Your task to perform on an android device: check android version Image 0: 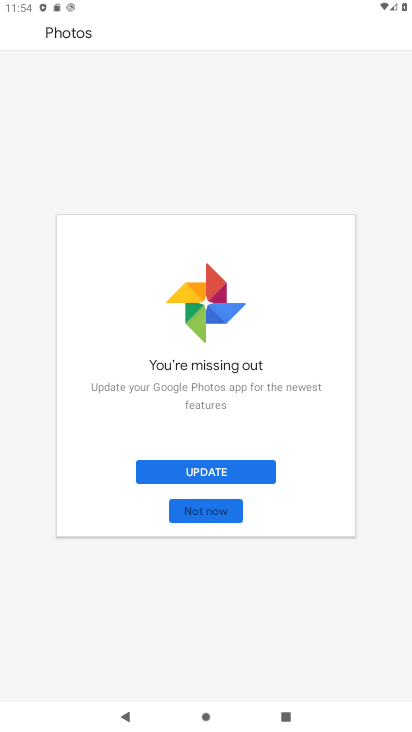
Step 0: press home button
Your task to perform on an android device: check android version Image 1: 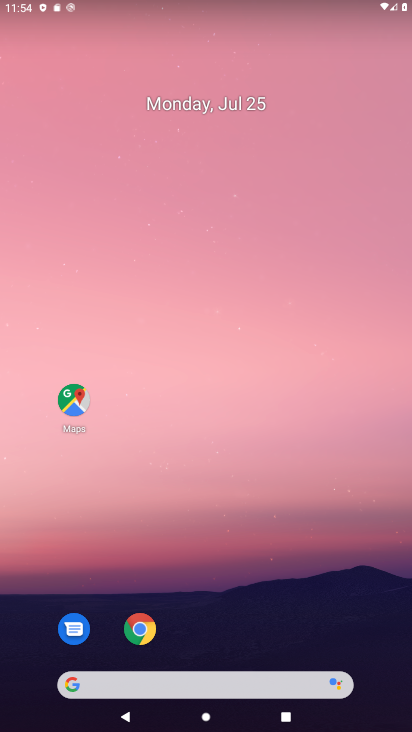
Step 1: drag from (367, 657) to (189, 50)
Your task to perform on an android device: check android version Image 2: 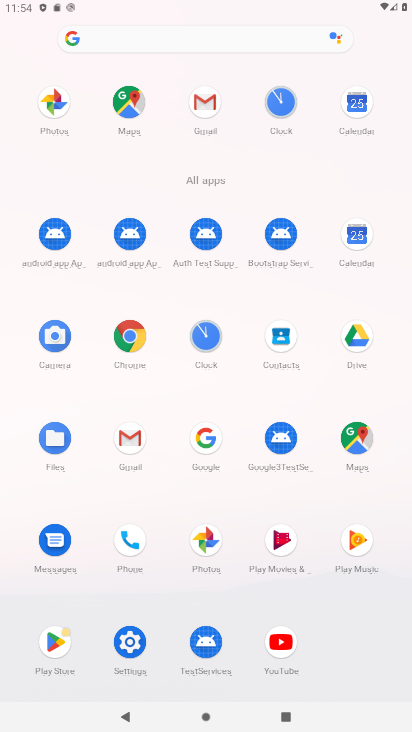
Step 2: click (137, 635)
Your task to perform on an android device: check android version Image 3: 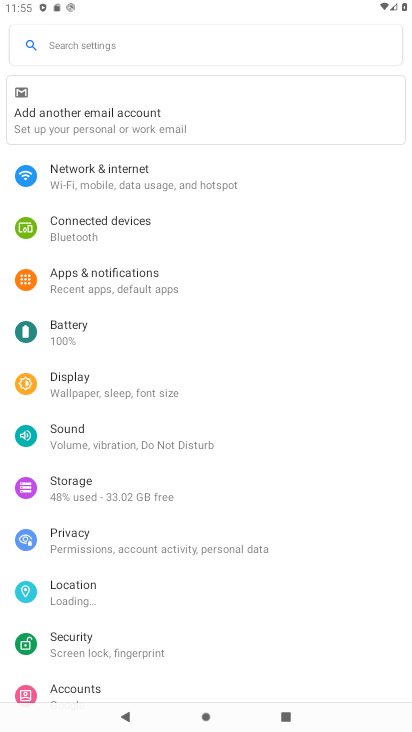
Step 3: drag from (340, 623) to (237, 169)
Your task to perform on an android device: check android version Image 4: 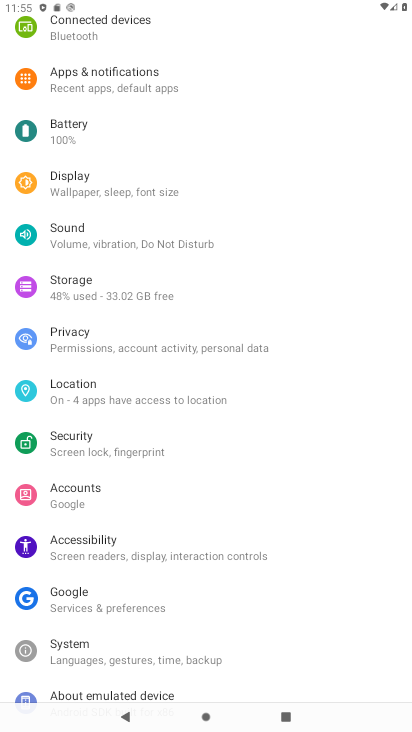
Step 4: drag from (321, 586) to (197, 147)
Your task to perform on an android device: check android version Image 5: 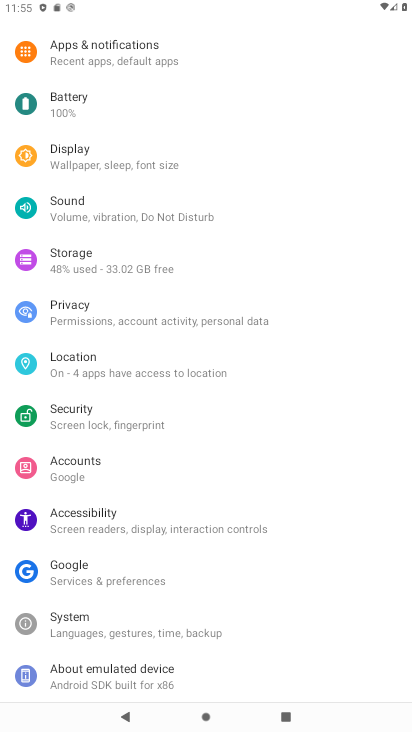
Step 5: click (124, 683)
Your task to perform on an android device: check android version Image 6: 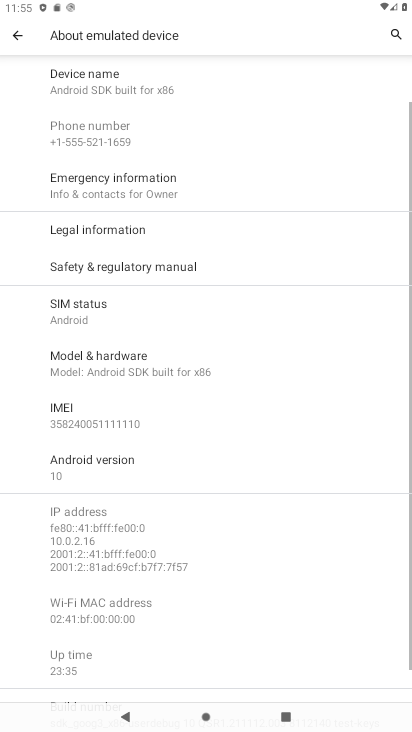
Step 6: click (110, 467)
Your task to perform on an android device: check android version Image 7: 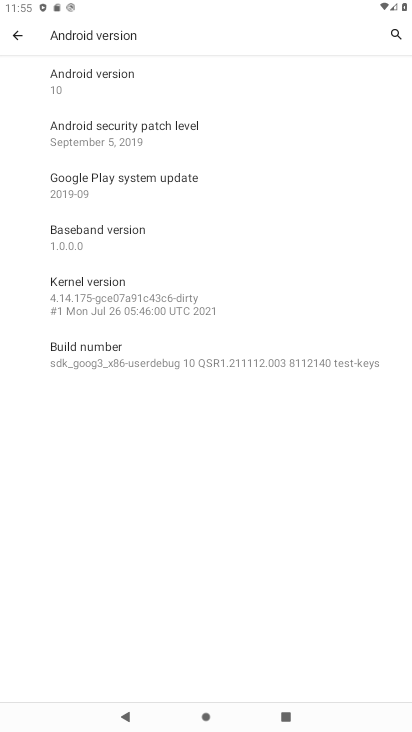
Step 7: task complete